Your task to perform on an android device: Open Google Chrome and click the shortcut for Amazon.com Image 0: 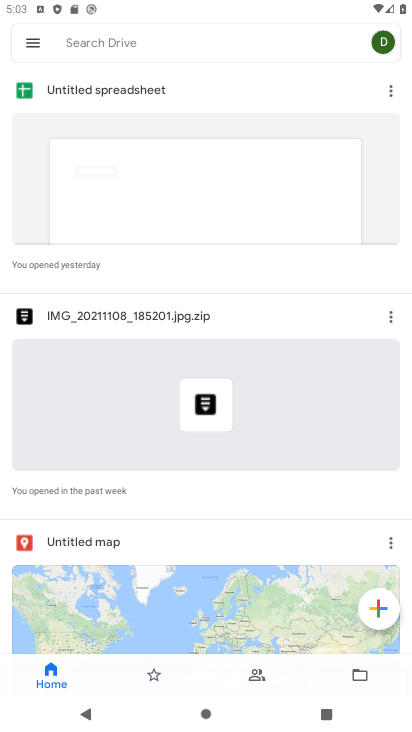
Step 0: press home button
Your task to perform on an android device: Open Google Chrome and click the shortcut for Amazon.com Image 1: 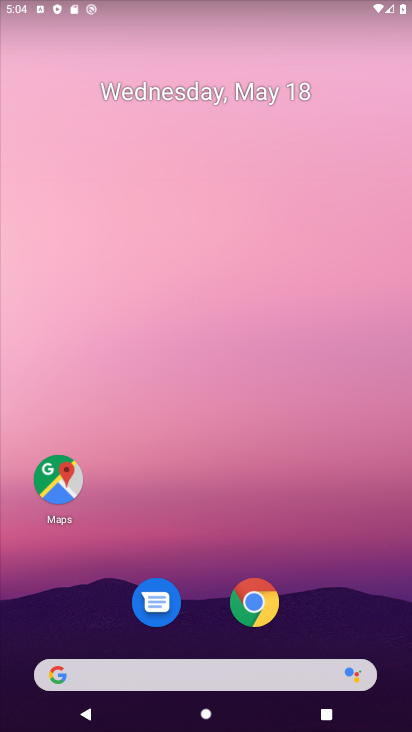
Step 1: drag from (283, 619) to (322, 154)
Your task to perform on an android device: Open Google Chrome and click the shortcut for Amazon.com Image 2: 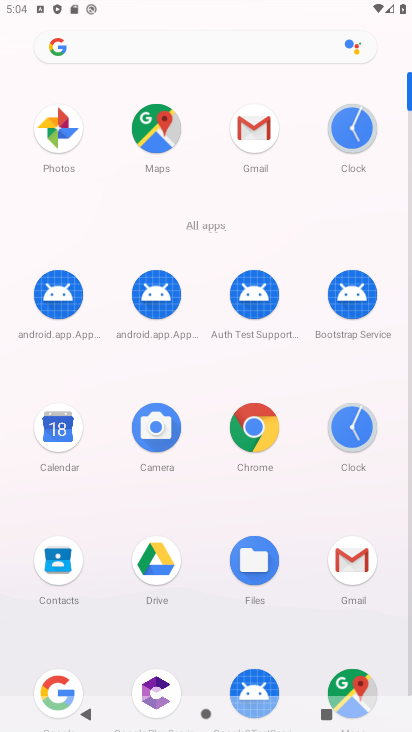
Step 2: click (257, 435)
Your task to perform on an android device: Open Google Chrome and click the shortcut for Amazon.com Image 3: 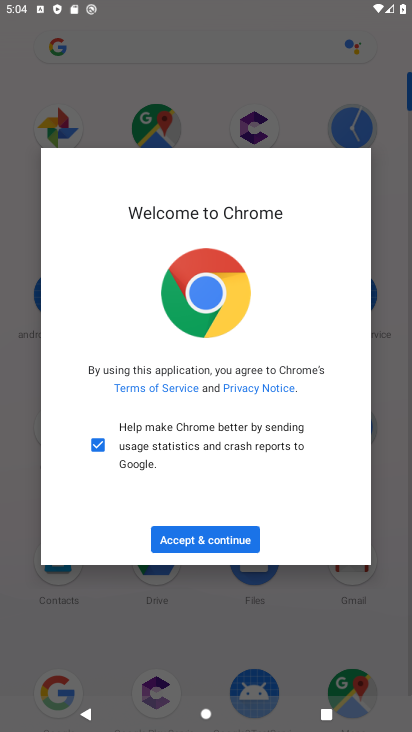
Step 3: click (206, 546)
Your task to perform on an android device: Open Google Chrome and click the shortcut for Amazon.com Image 4: 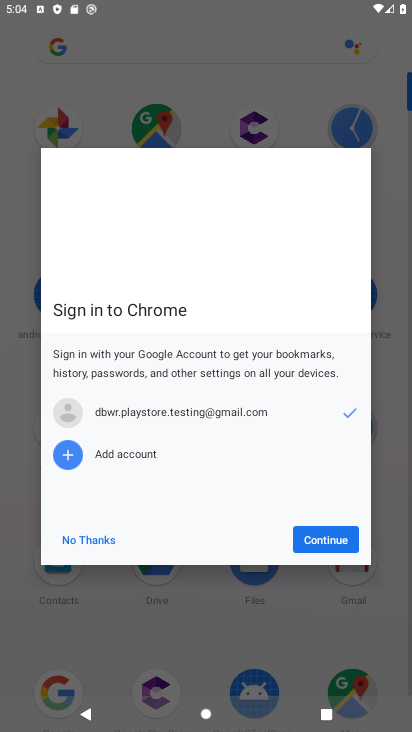
Step 4: click (97, 546)
Your task to perform on an android device: Open Google Chrome and click the shortcut for Amazon.com Image 5: 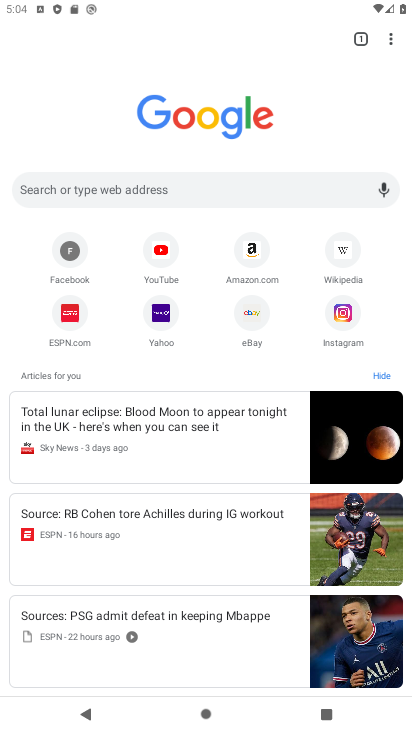
Step 5: click (245, 256)
Your task to perform on an android device: Open Google Chrome and click the shortcut for Amazon.com Image 6: 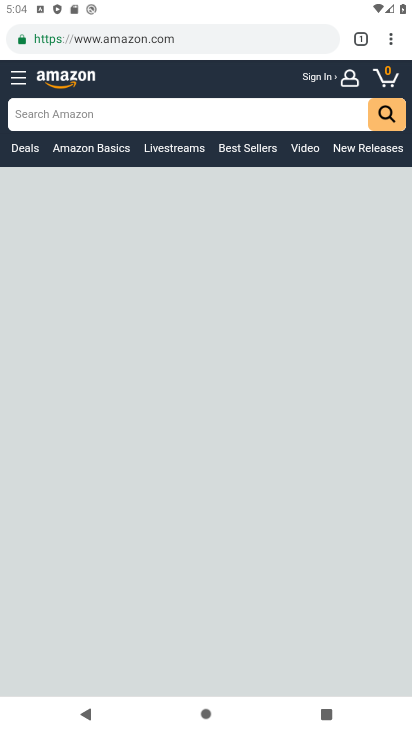
Step 6: click (385, 40)
Your task to perform on an android device: Open Google Chrome and click the shortcut for Amazon.com Image 7: 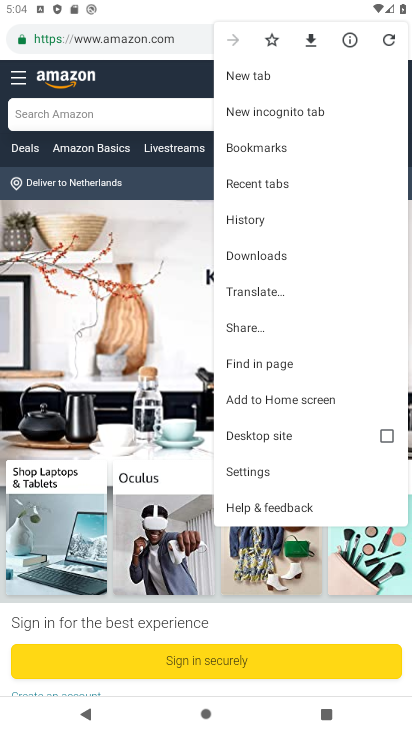
Step 7: click (274, 405)
Your task to perform on an android device: Open Google Chrome and click the shortcut for Amazon.com Image 8: 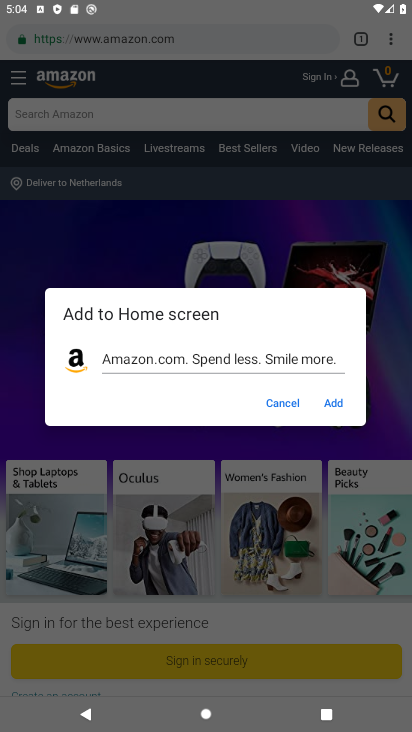
Step 8: click (341, 403)
Your task to perform on an android device: Open Google Chrome and click the shortcut for Amazon.com Image 9: 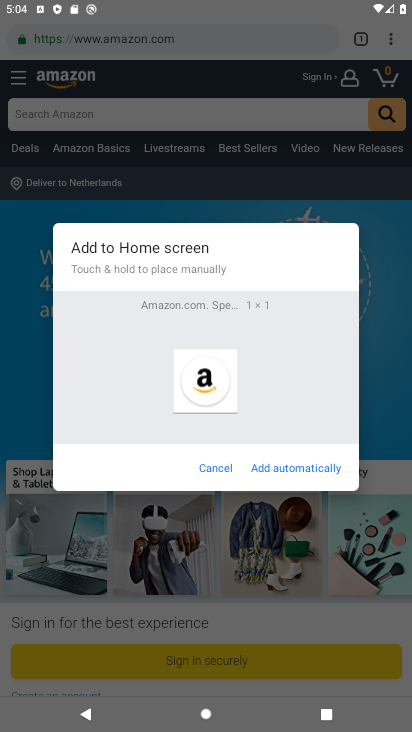
Step 9: click (286, 465)
Your task to perform on an android device: Open Google Chrome and click the shortcut for Amazon.com Image 10: 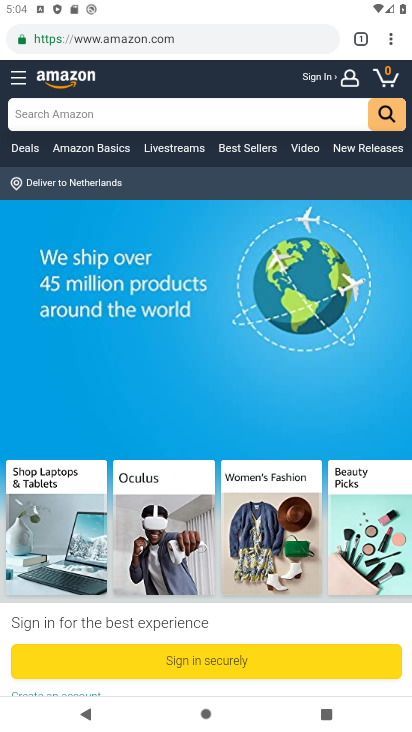
Step 10: task complete